Your task to perform on an android device: check storage Image 0: 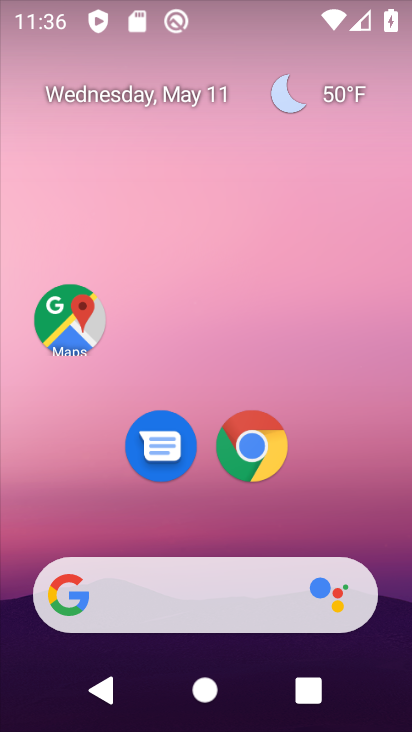
Step 0: drag from (345, 497) to (332, 375)
Your task to perform on an android device: check storage Image 1: 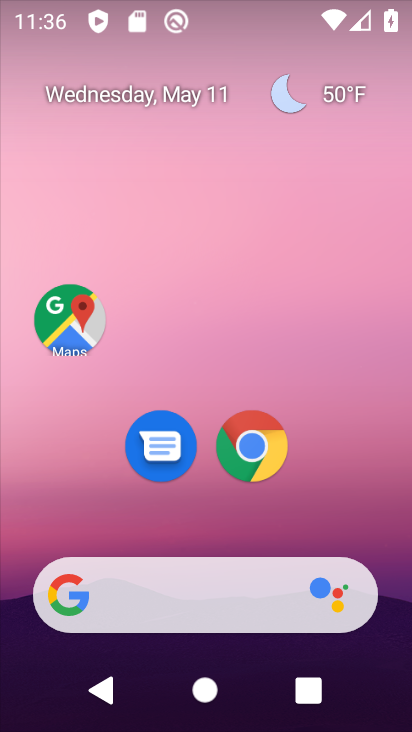
Step 1: drag from (333, 499) to (354, 157)
Your task to perform on an android device: check storage Image 2: 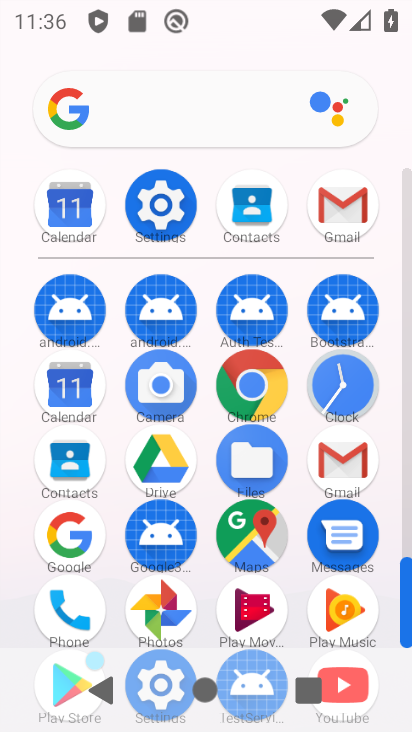
Step 2: click (145, 191)
Your task to perform on an android device: check storage Image 3: 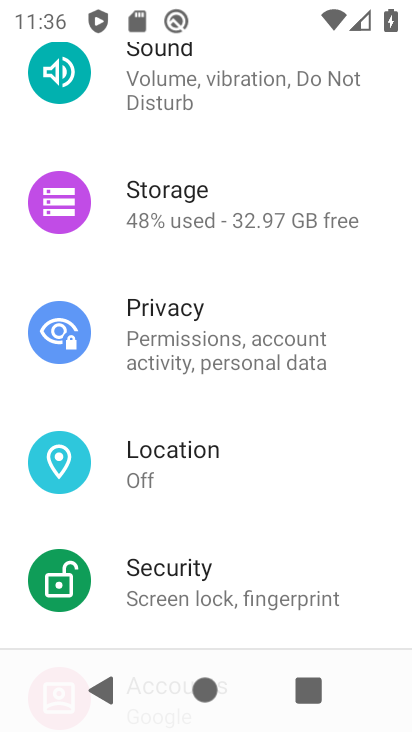
Step 3: click (166, 207)
Your task to perform on an android device: check storage Image 4: 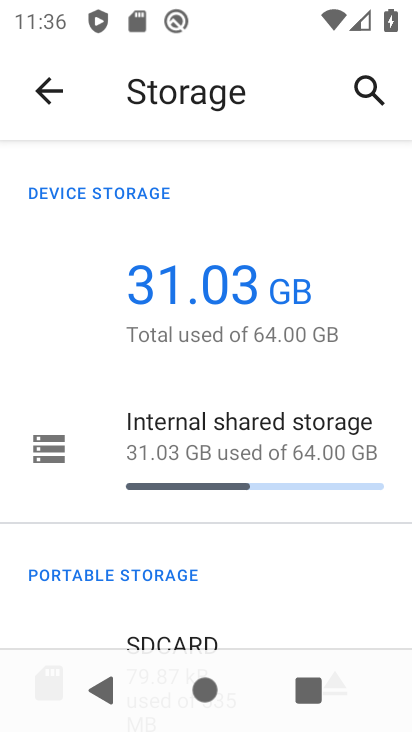
Step 4: task complete